Your task to perform on an android device: turn on notifications settings in the gmail app Image 0: 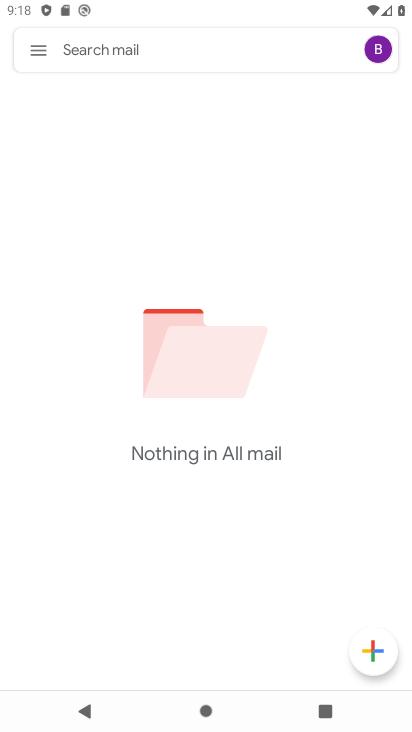
Step 0: click (33, 54)
Your task to perform on an android device: turn on notifications settings in the gmail app Image 1: 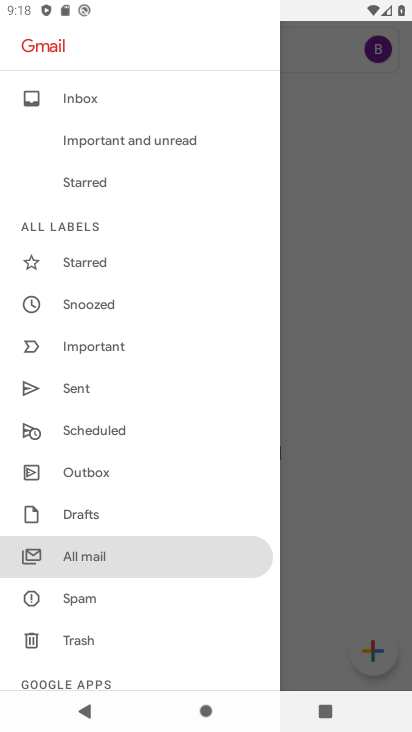
Step 1: drag from (96, 597) to (66, 224)
Your task to perform on an android device: turn on notifications settings in the gmail app Image 2: 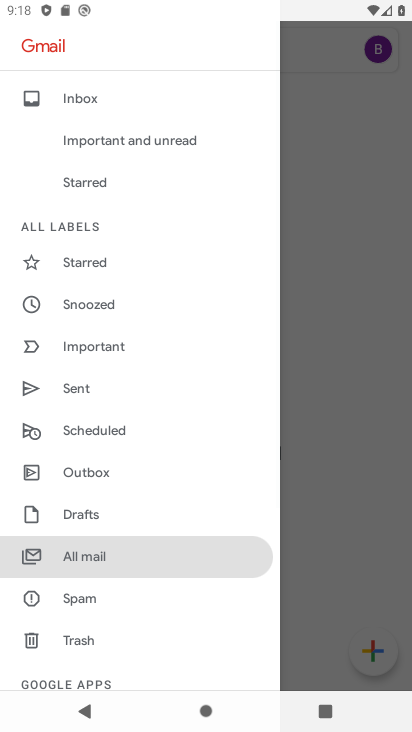
Step 2: drag from (114, 582) to (98, 285)
Your task to perform on an android device: turn on notifications settings in the gmail app Image 3: 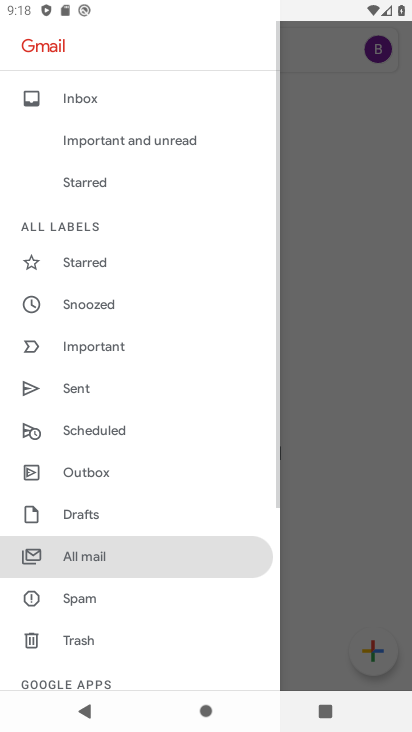
Step 3: drag from (184, 614) to (184, 176)
Your task to perform on an android device: turn on notifications settings in the gmail app Image 4: 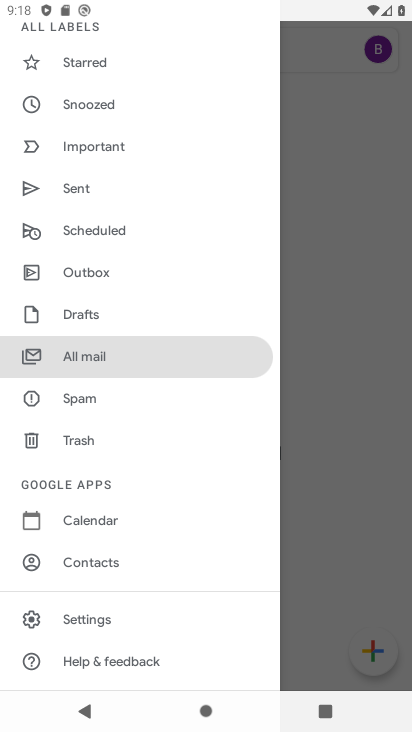
Step 4: click (131, 614)
Your task to perform on an android device: turn on notifications settings in the gmail app Image 5: 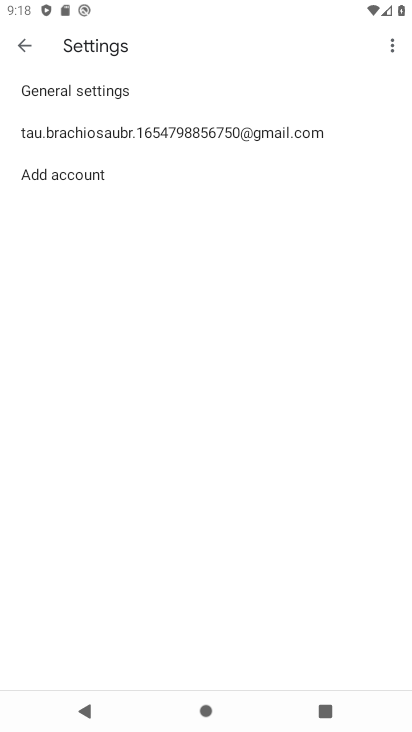
Step 5: click (191, 131)
Your task to perform on an android device: turn on notifications settings in the gmail app Image 6: 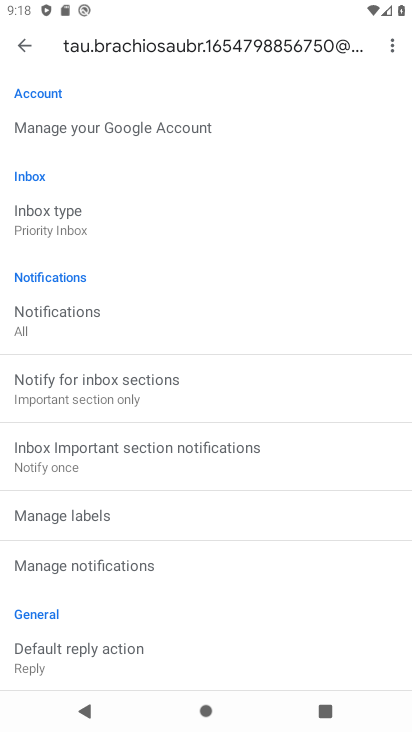
Step 6: click (65, 561)
Your task to perform on an android device: turn on notifications settings in the gmail app Image 7: 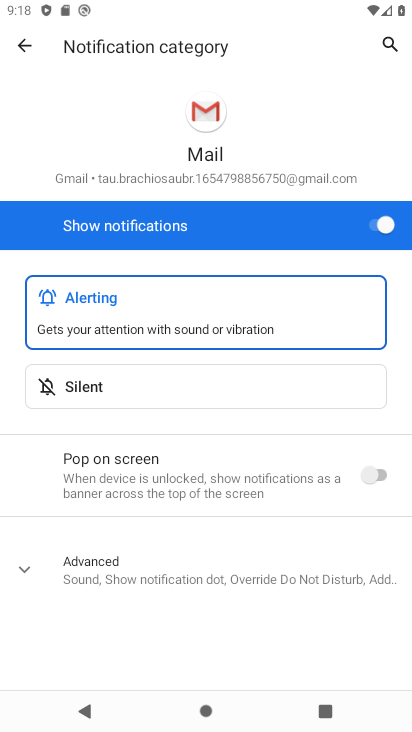
Step 7: task complete